Your task to perform on an android device: Is it going to rain tomorrow? Image 0: 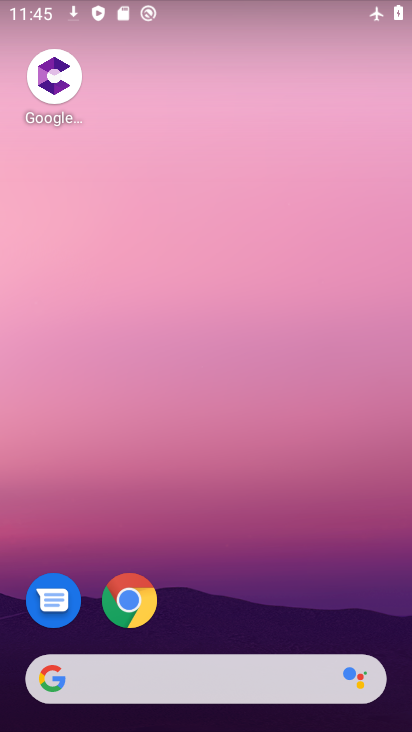
Step 0: drag from (264, 557) to (270, 25)
Your task to perform on an android device: Is it going to rain tomorrow? Image 1: 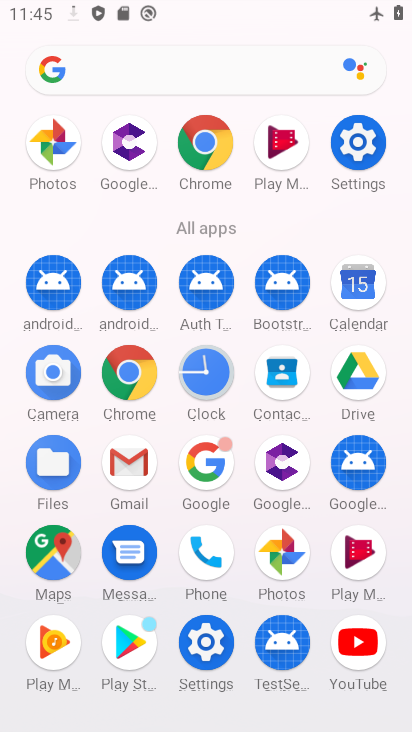
Step 1: click (126, 366)
Your task to perform on an android device: Is it going to rain tomorrow? Image 2: 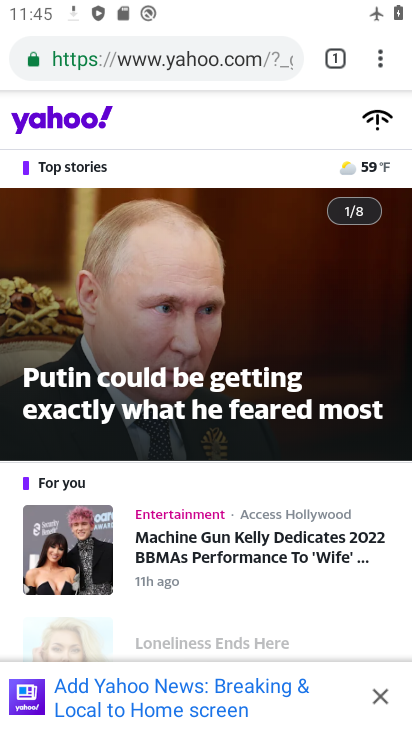
Step 2: click (235, 60)
Your task to perform on an android device: Is it going to rain tomorrow? Image 3: 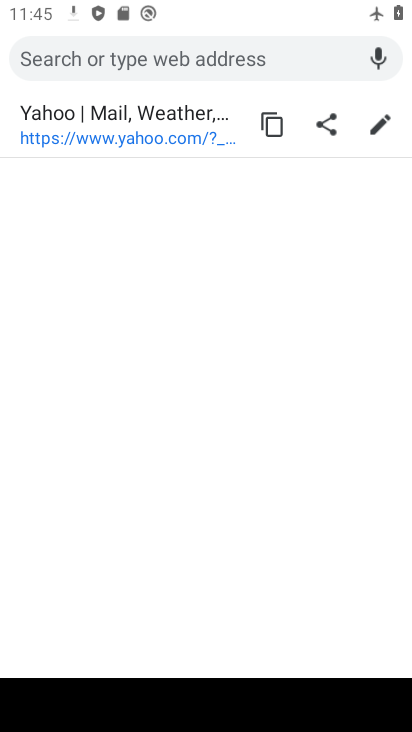
Step 3: type "Is it going to rain tomorrow?"
Your task to perform on an android device: Is it going to rain tomorrow? Image 4: 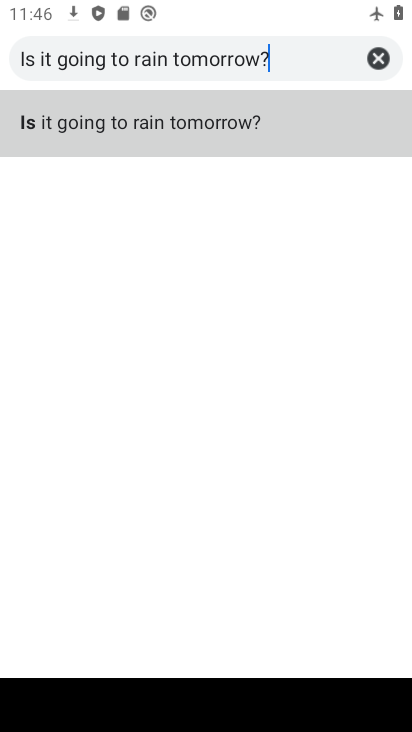
Step 4: type ""
Your task to perform on an android device: Is it going to rain tomorrow? Image 5: 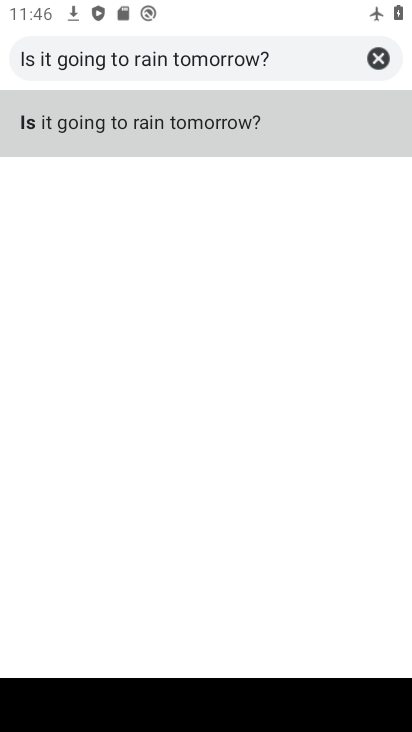
Step 5: click (237, 121)
Your task to perform on an android device: Is it going to rain tomorrow? Image 6: 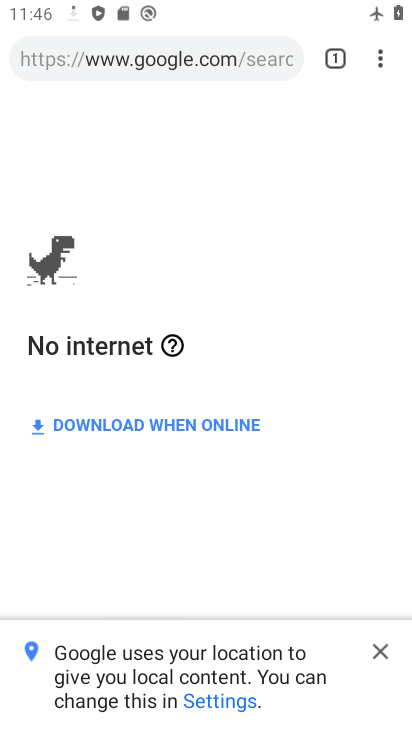
Step 6: task complete